Your task to perform on an android device: open the mobile data screen to see how much data has been used Image 0: 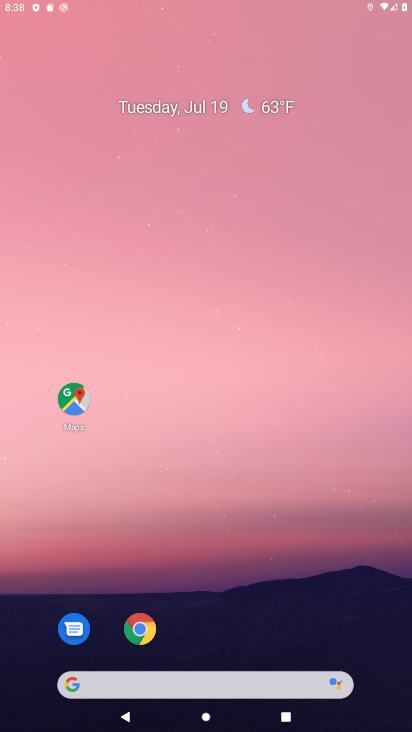
Step 0: press home button
Your task to perform on an android device: open the mobile data screen to see how much data has been used Image 1: 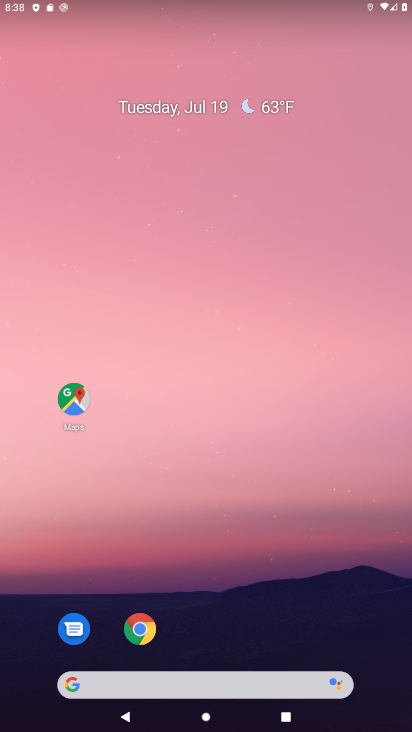
Step 1: drag from (225, 649) to (214, 1)
Your task to perform on an android device: open the mobile data screen to see how much data has been used Image 2: 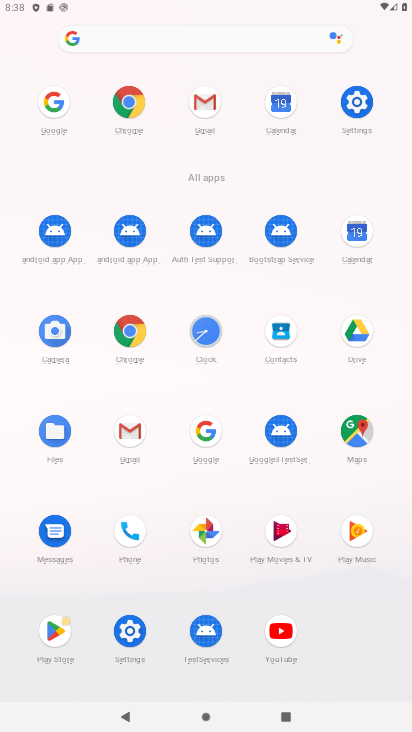
Step 2: click (354, 94)
Your task to perform on an android device: open the mobile data screen to see how much data has been used Image 3: 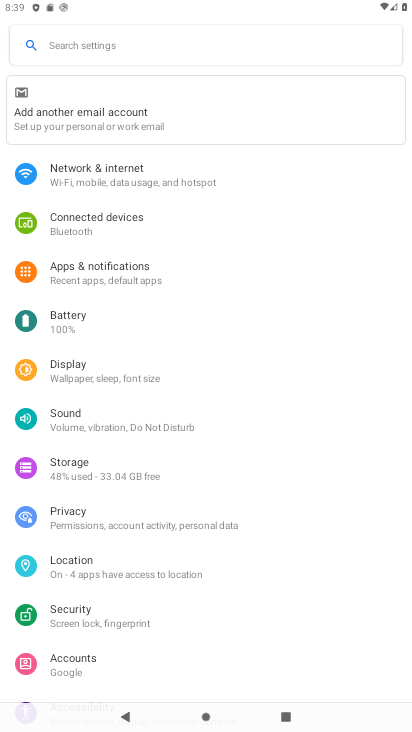
Step 3: click (85, 176)
Your task to perform on an android device: open the mobile data screen to see how much data has been used Image 4: 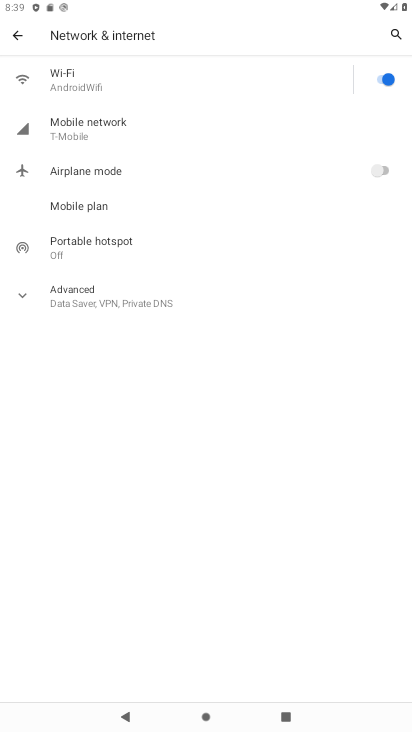
Step 4: click (22, 288)
Your task to perform on an android device: open the mobile data screen to see how much data has been used Image 5: 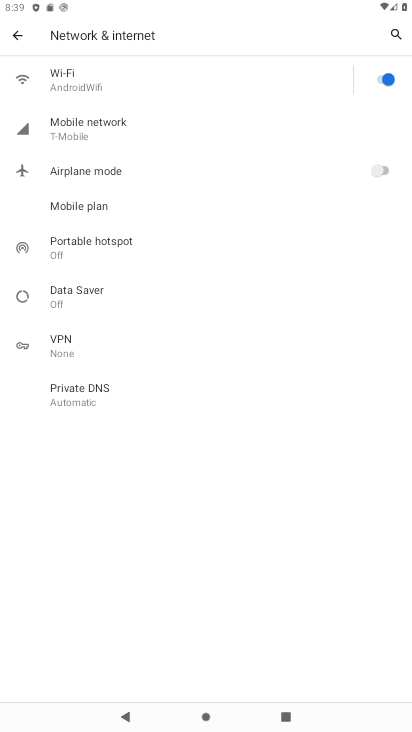
Step 5: task complete